Your task to perform on an android device: turn off priority inbox in the gmail app Image 0: 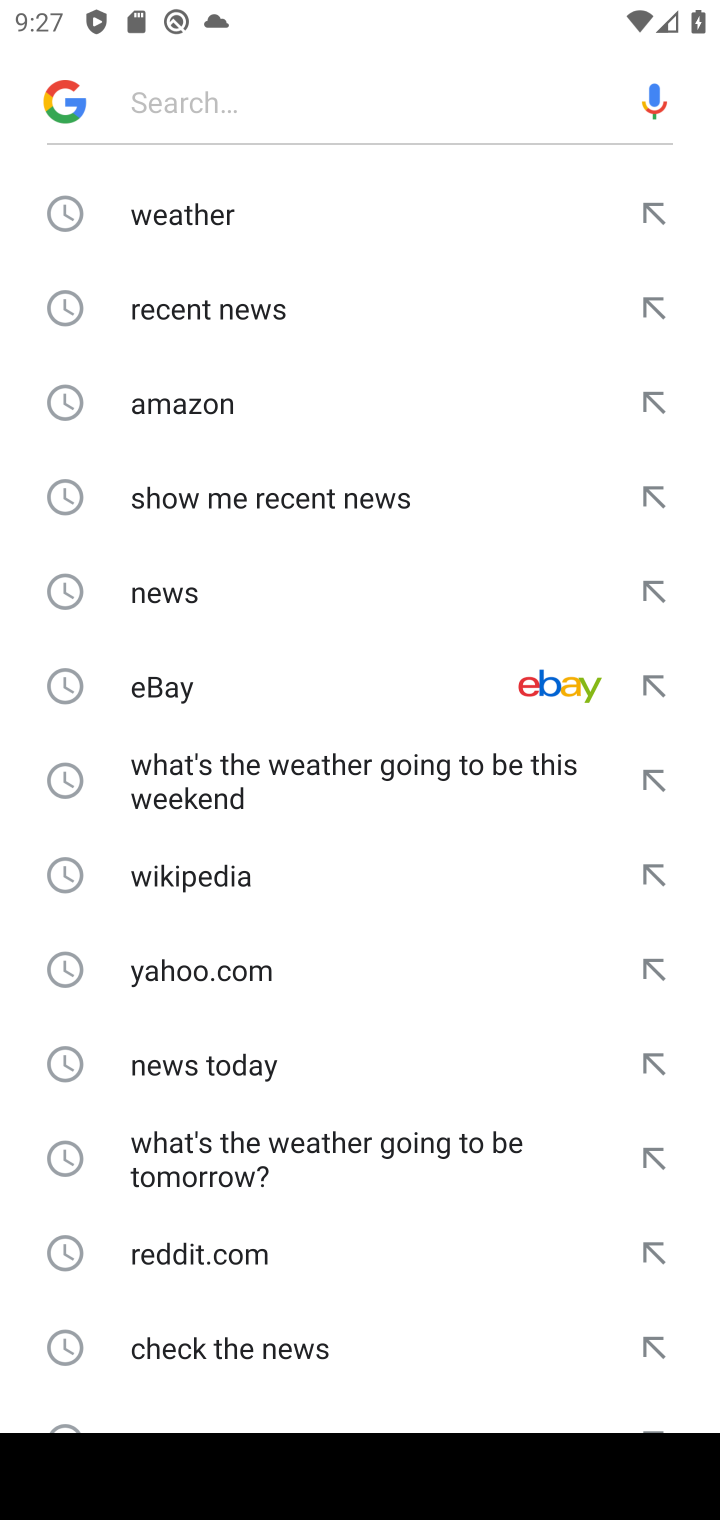
Step 0: press home button
Your task to perform on an android device: turn off priority inbox in the gmail app Image 1: 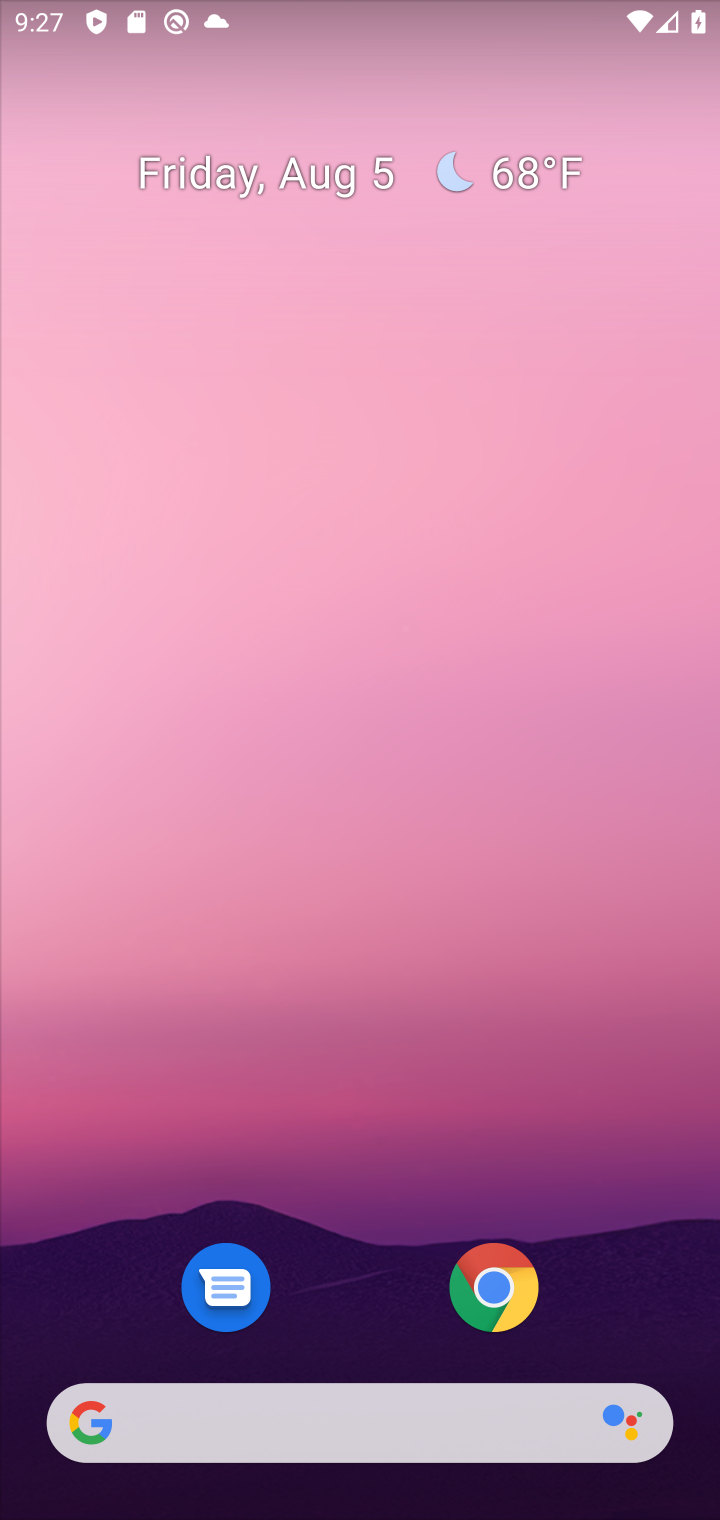
Step 1: drag from (353, 1246) to (355, 272)
Your task to perform on an android device: turn off priority inbox in the gmail app Image 2: 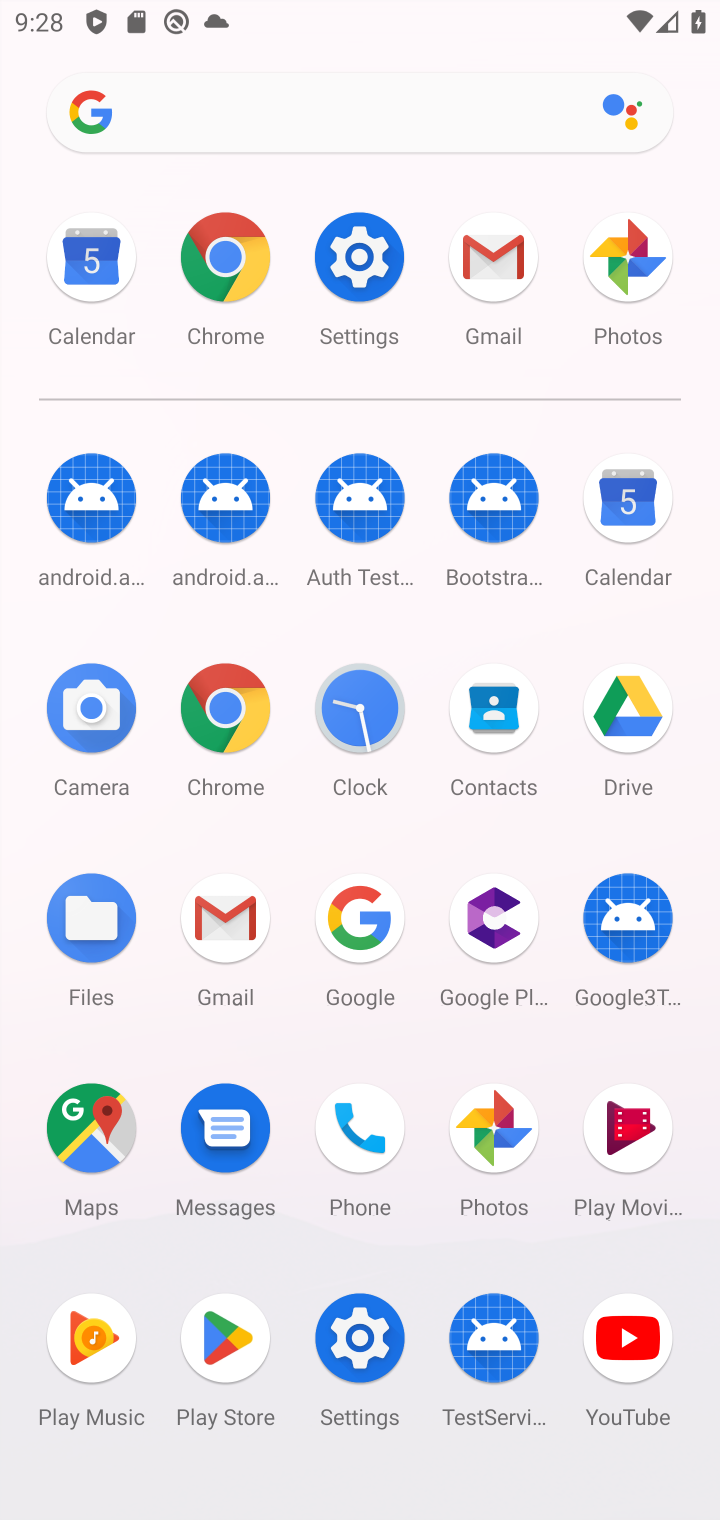
Step 2: click (218, 926)
Your task to perform on an android device: turn off priority inbox in the gmail app Image 3: 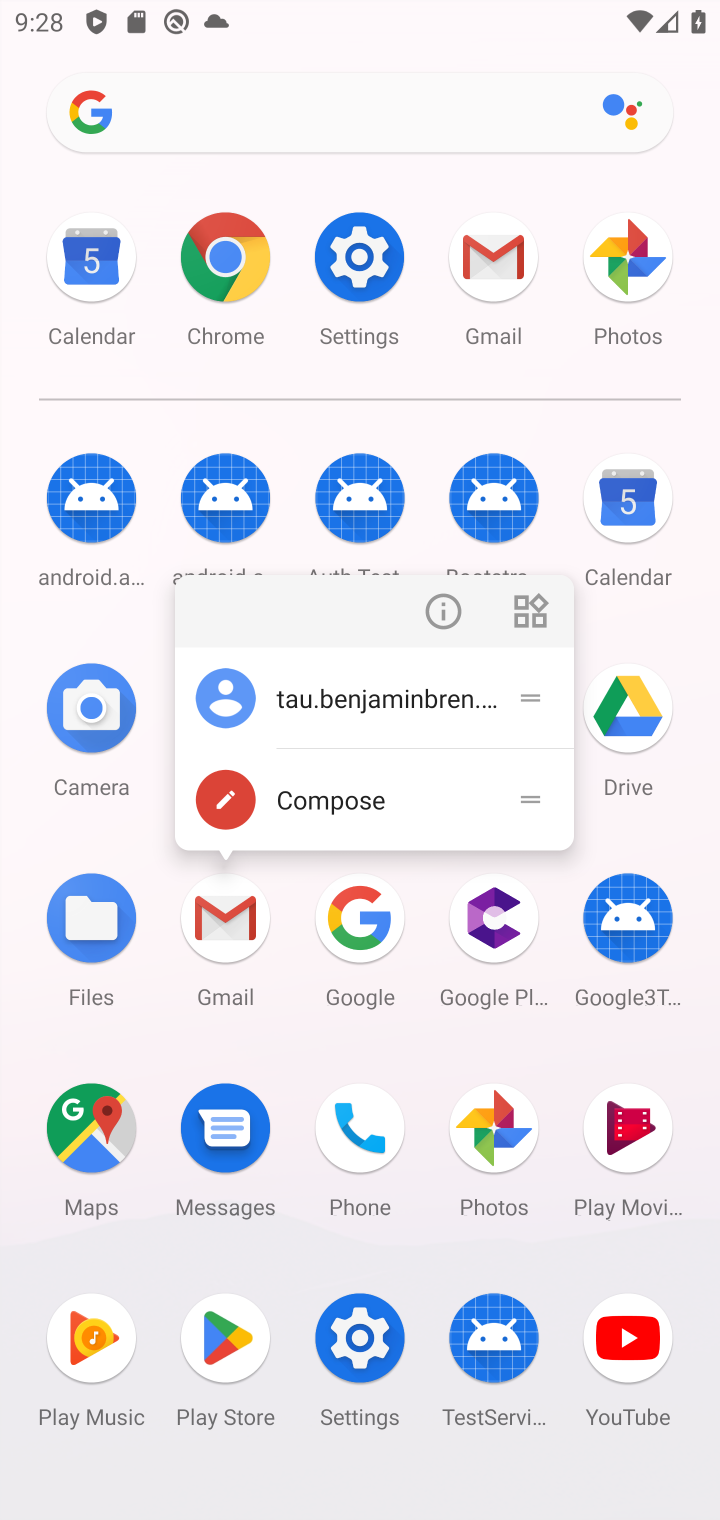
Step 3: click (207, 919)
Your task to perform on an android device: turn off priority inbox in the gmail app Image 4: 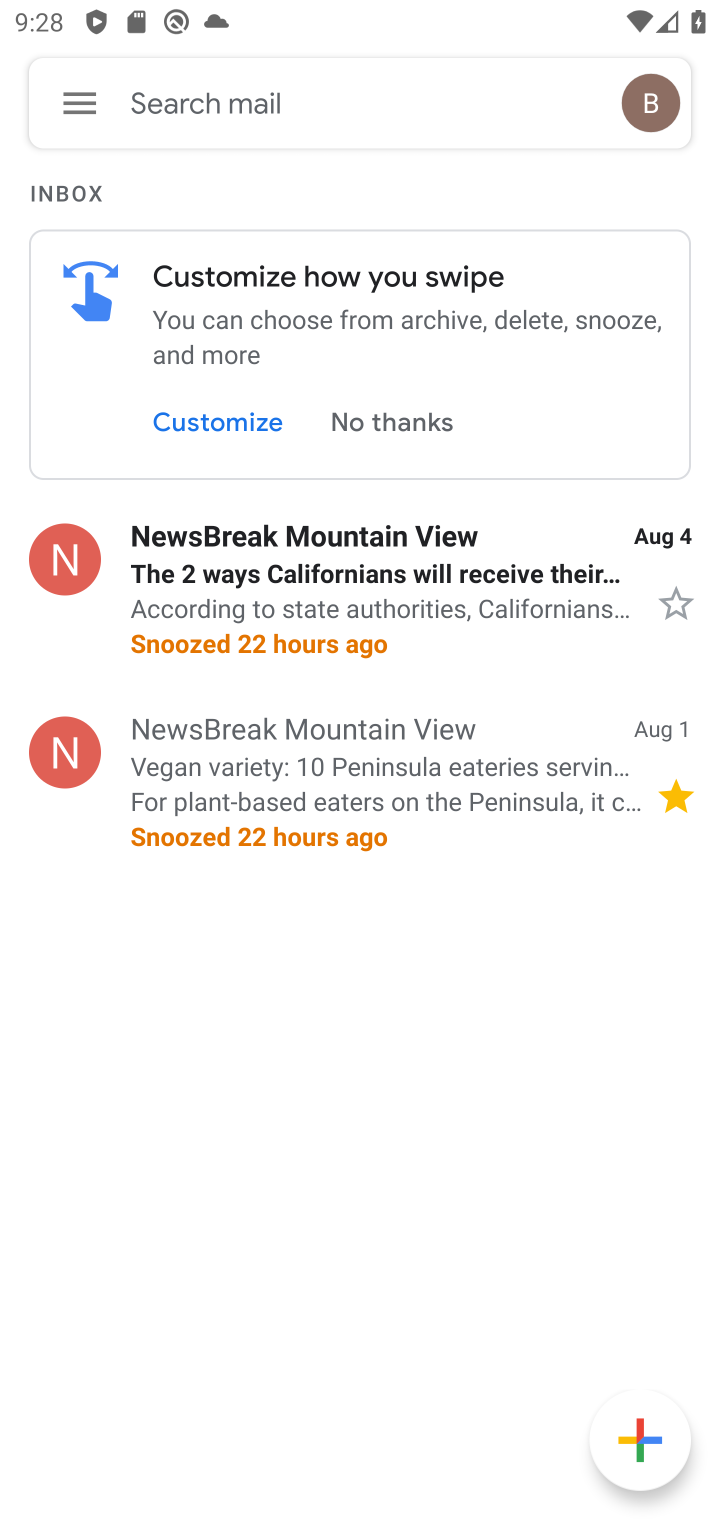
Step 4: click (76, 99)
Your task to perform on an android device: turn off priority inbox in the gmail app Image 5: 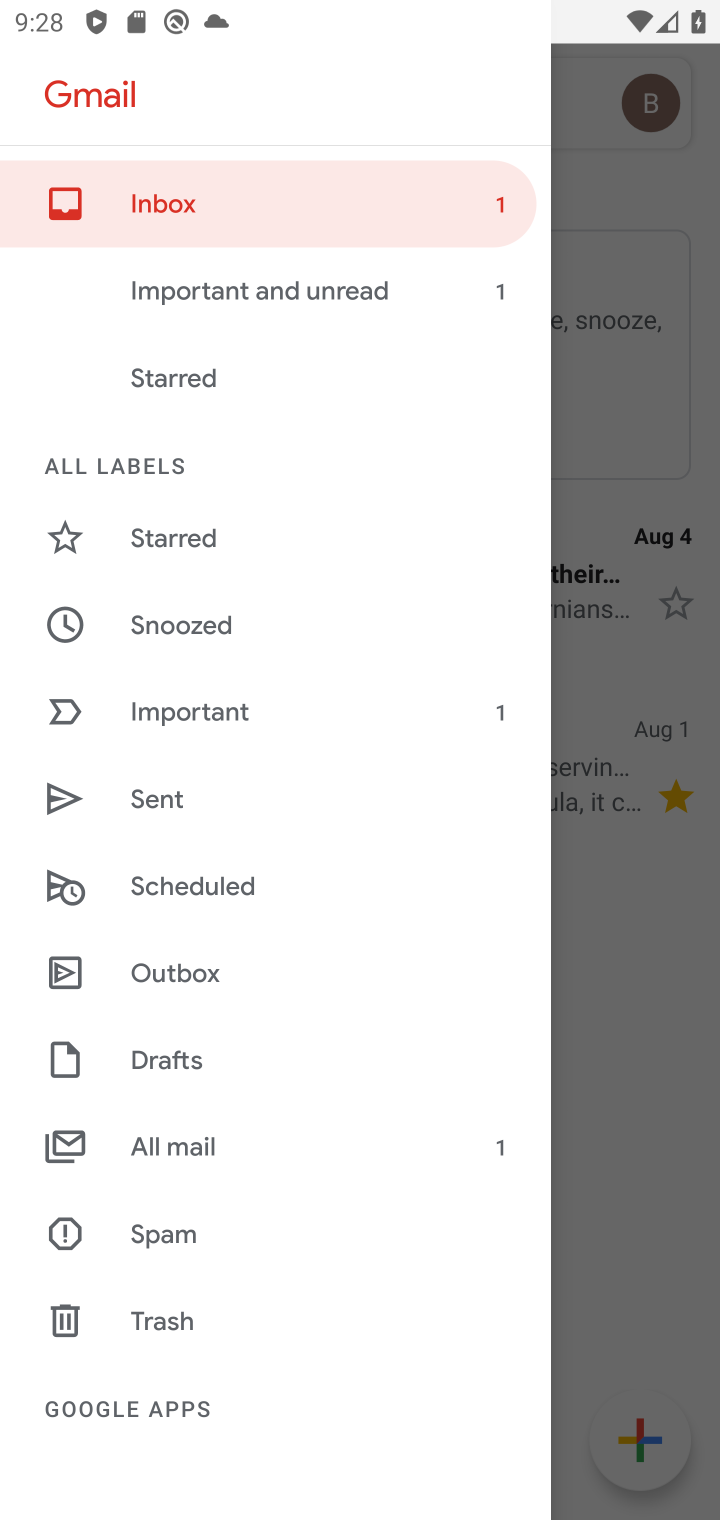
Step 5: drag from (193, 1431) to (189, 733)
Your task to perform on an android device: turn off priority inbox in the gmail app Image 6: 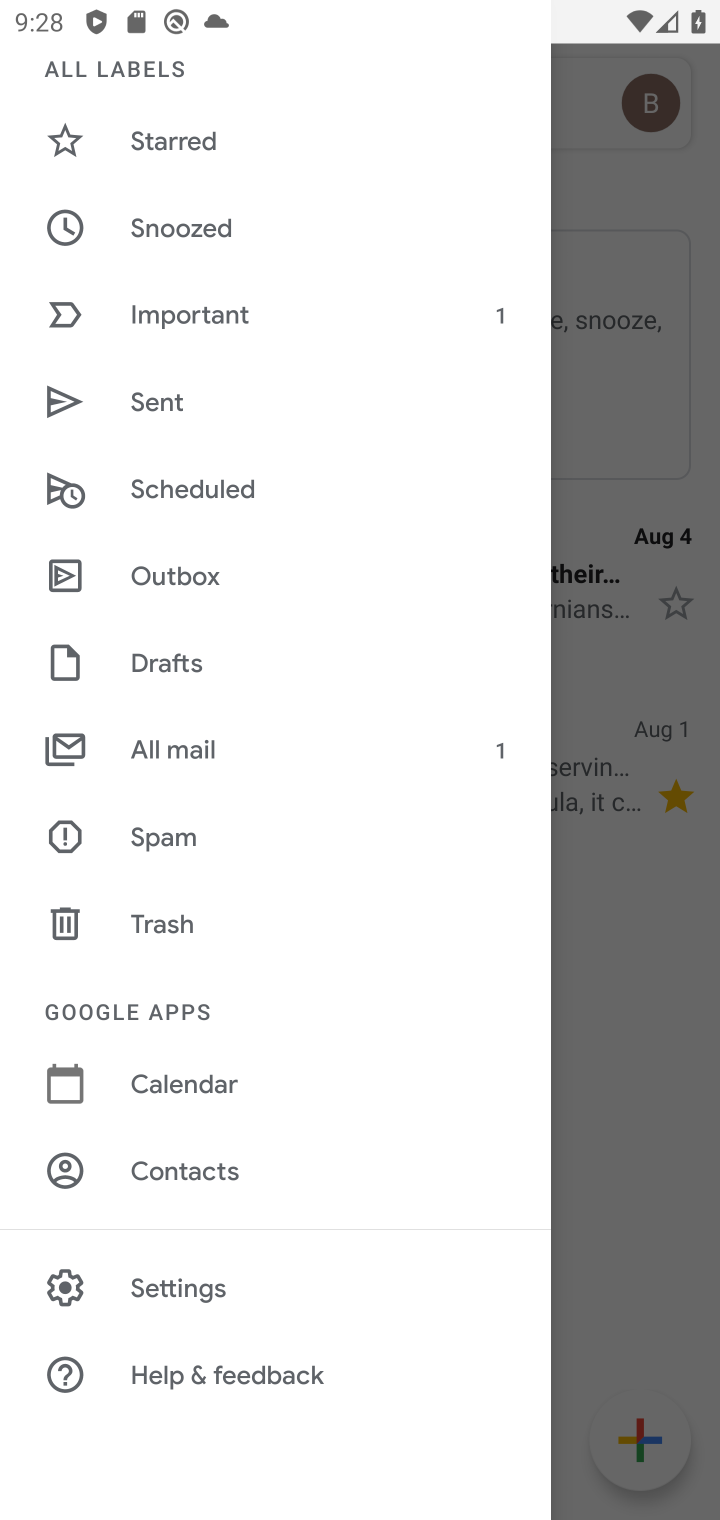
Step 6: click (179, 1280)
Your task to perform on an android device: turn off priority inbox in the gmail app Image 7: 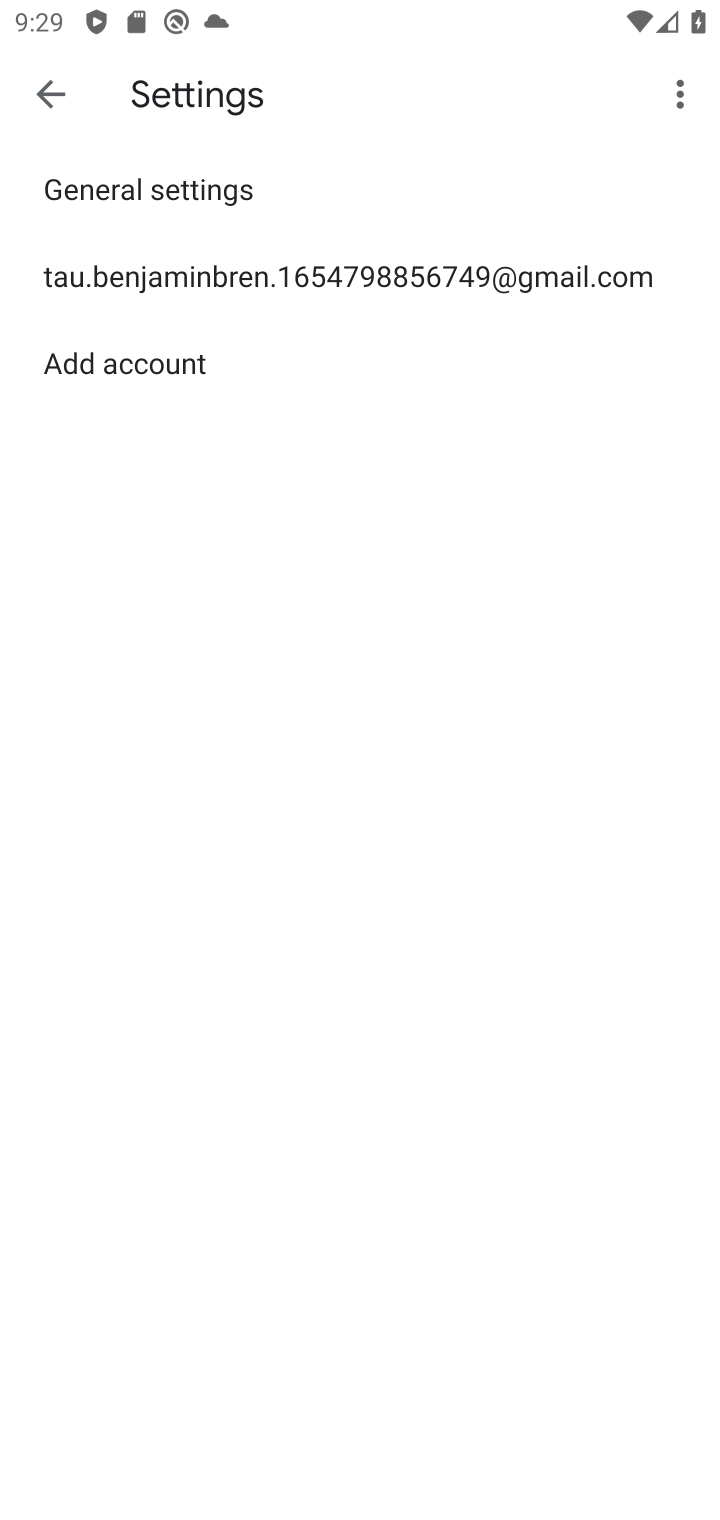
Step 7: click (295, 280)
Your task to perform on an android device: turn off priority inbox in the gmail app Image 8: 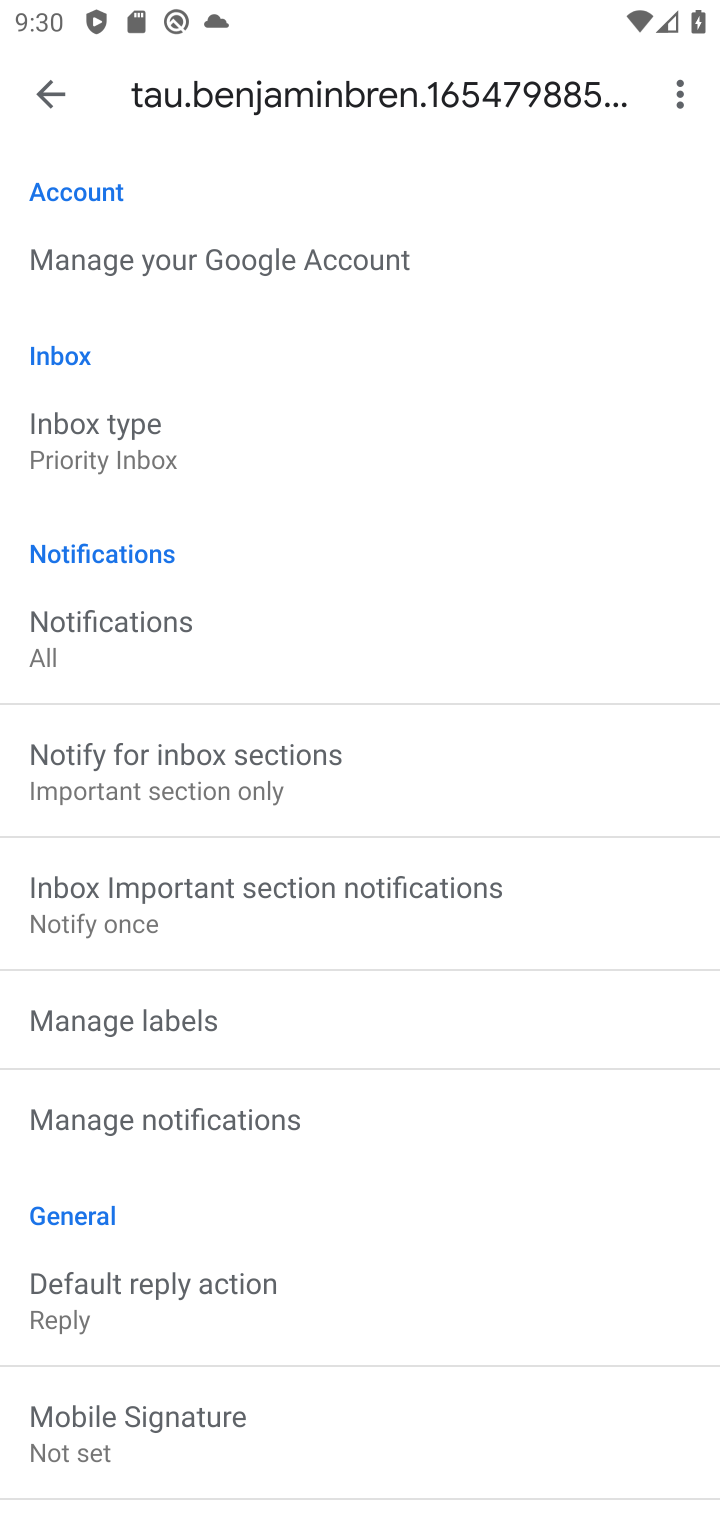
Step 8: click (120, 450)
Your task to perform on an android device: turn off priority inbox in the gmail app Image 9: 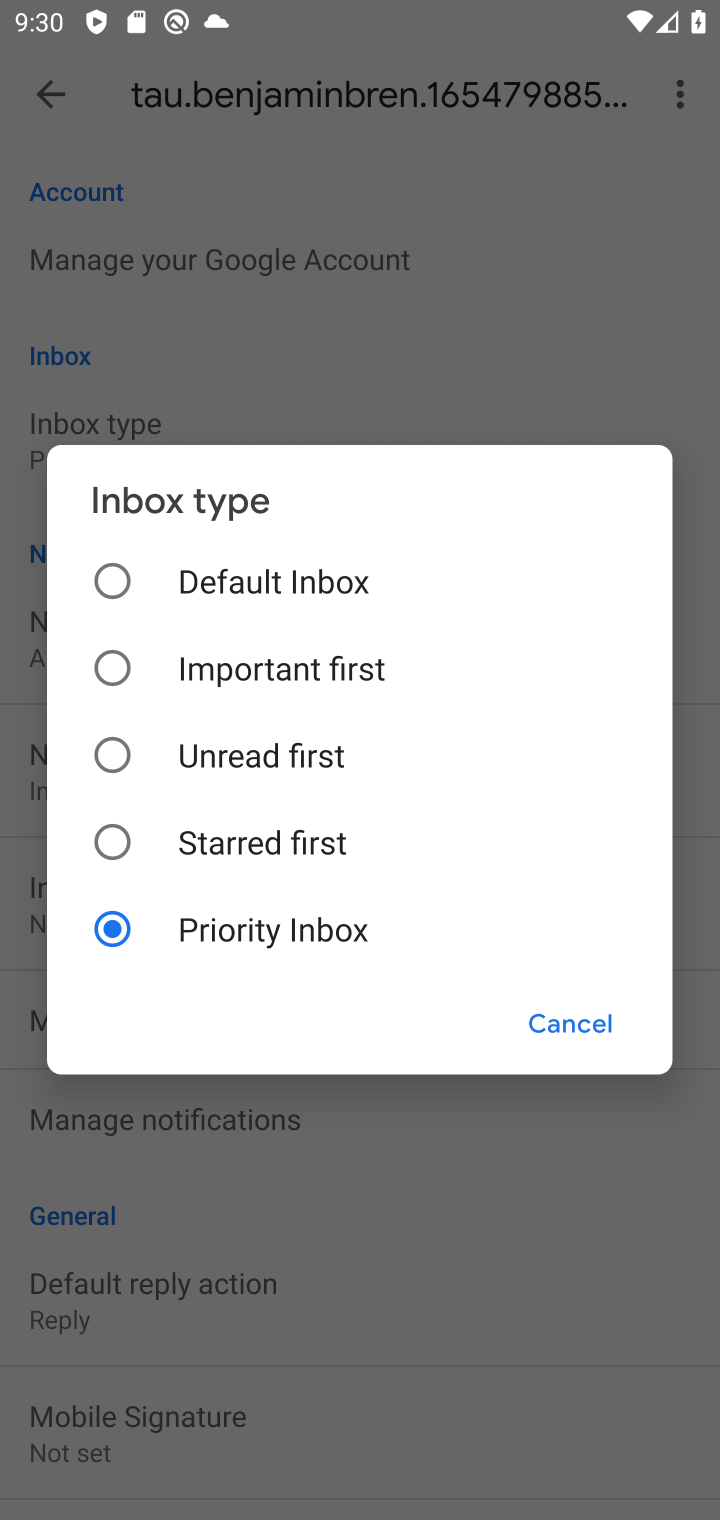
Step 9: click (101, 582)
Your task to perform on an android device: turn off priority inbox in the gmail app Image 10: 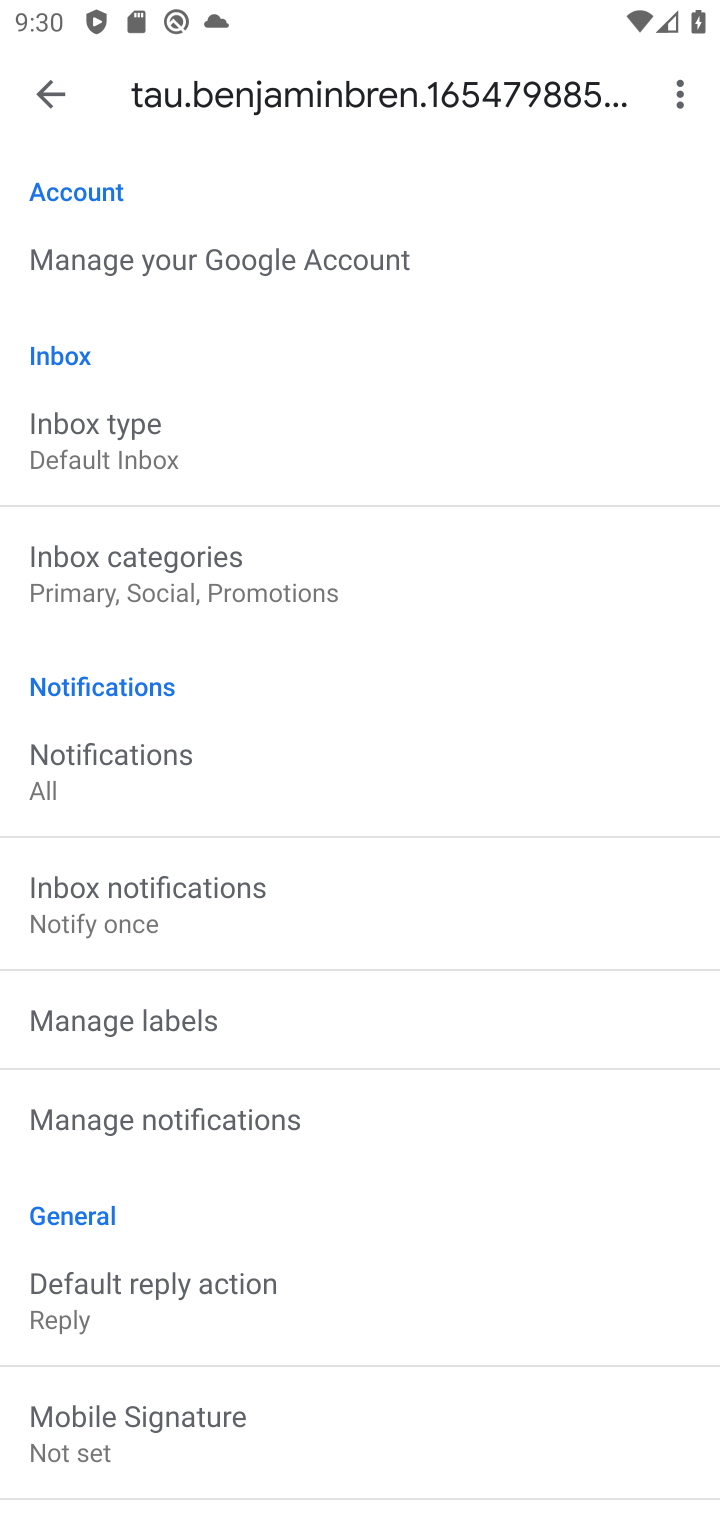
Step 10: task complete